Your task to perform on an android device: show emergency info Image 0: 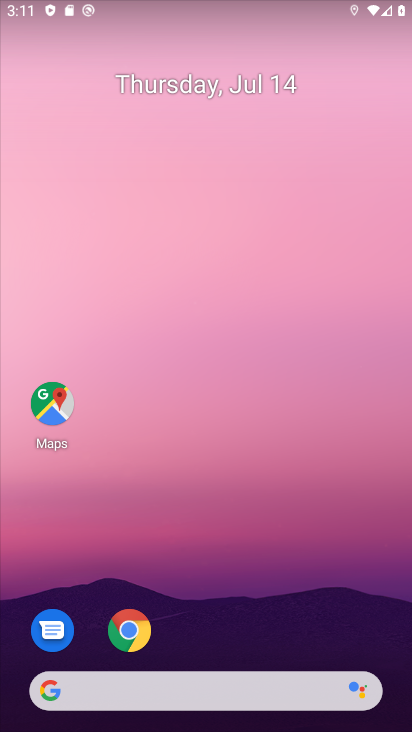
Step 0: drag from (309, 625) to (159, 130)
Your task to perform on an android device: show emergency info Image 1: 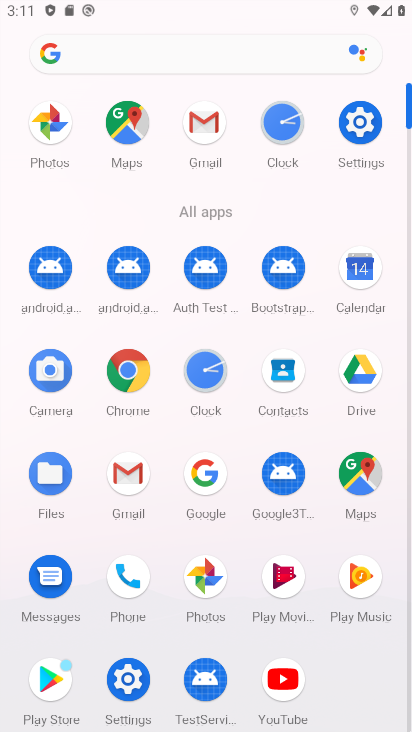
Step 1: click (361, 136)
Your task to perform on an android device: show emergency info Image 2: 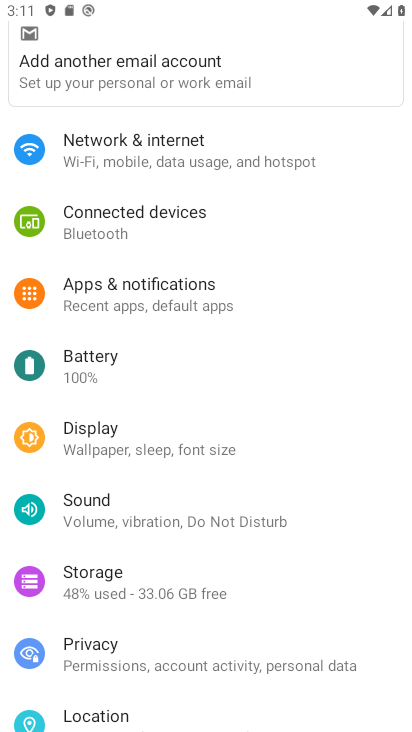
Step 2: drag from (172, 606) to (52, 0)
Your task to perform on an android device: show emergency info Image 3: 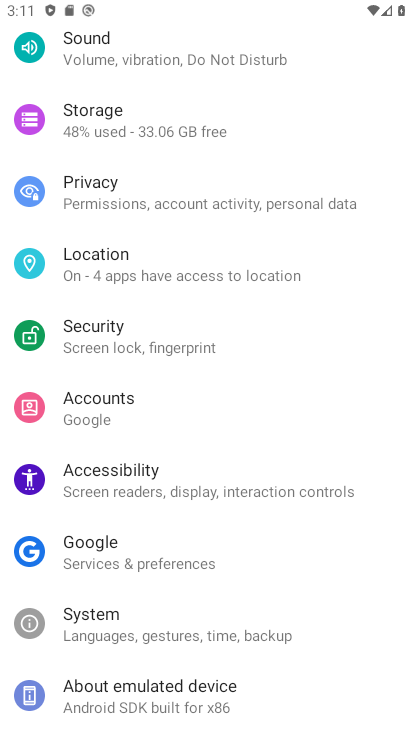
Step 3: click (242, 694)
Your task to perform on an android device: show emergency info Image 4: 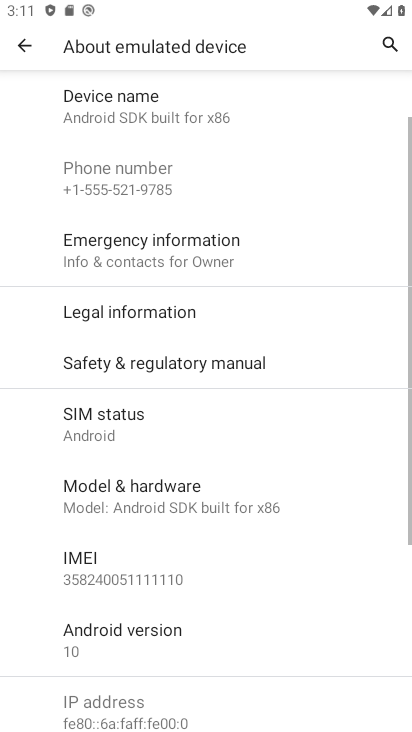
Step 4: click (127, 250)
Your task to perform on an android device: show emergency info Image 5: 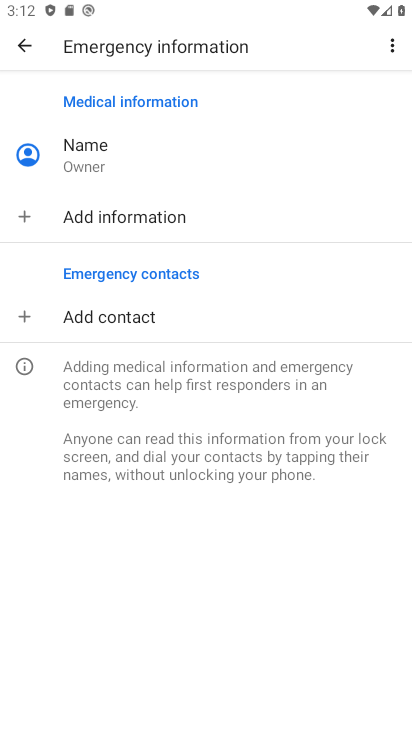
Step 5: task complete